Your task to perform on an android device: all mails in gmail Image 0: 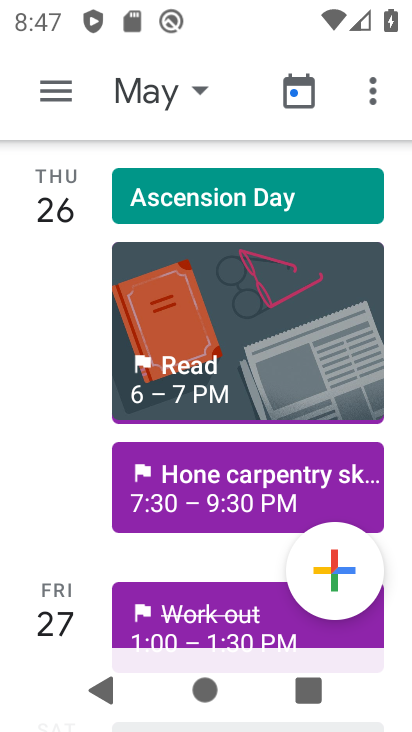
Step 0: press home button
Your task to perform on an android device: all mails in gmail Image 1: 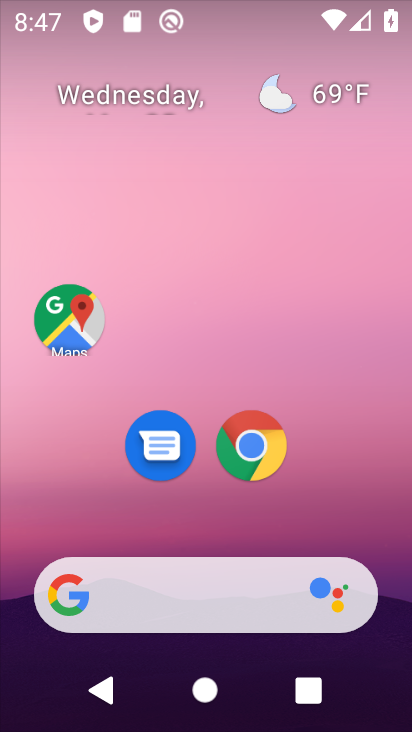
Step 1: drag from (313, 500) to (305, 67)
Your task to perform on an android device: all mails in gmail Image 2: 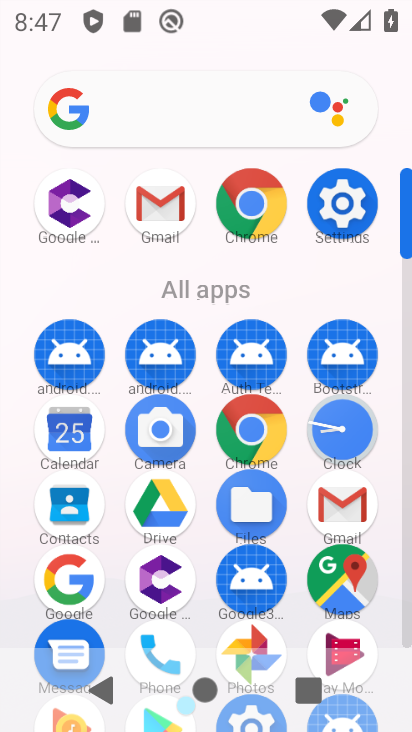
Step 2: click (161, 195)
Your task to perform on an android device: all mails in gmail Image 3: 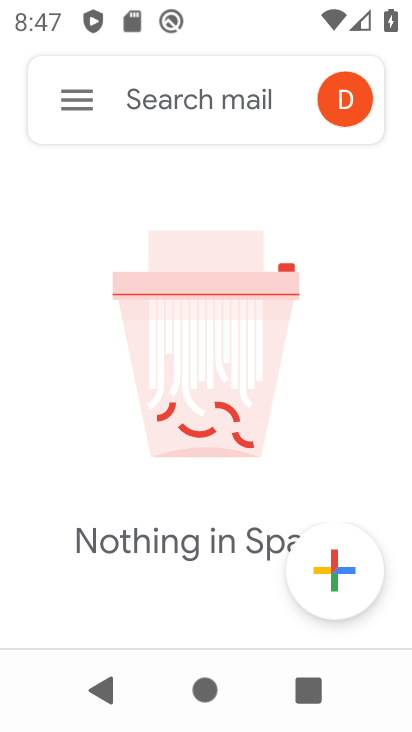
Step 3: click (69, 101)
Your task to perform on an android device: all mails in gmail Image 4: 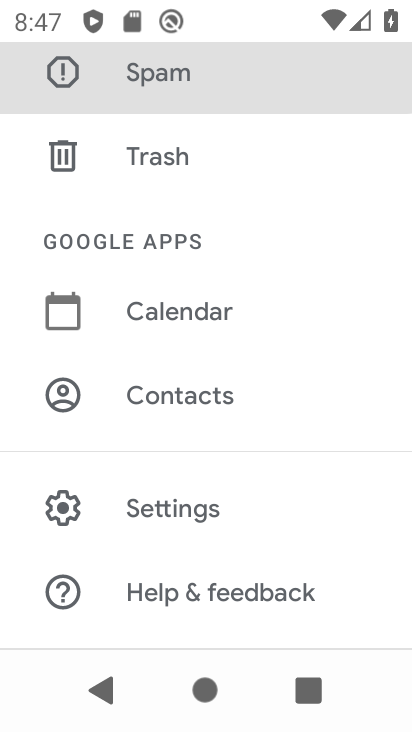
Step 4: drag from (245, 215) to (243, 513)
Your task to perform on an android device: all mails in gmail Image 5: 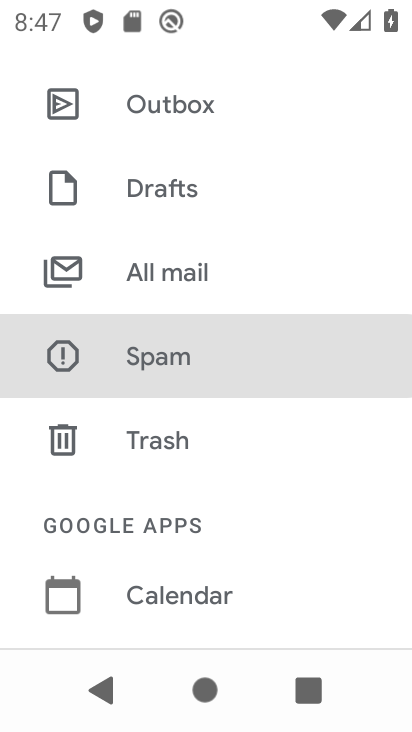
Step 5: click (178, 267)
Your task to perform on an android device: all mails in gmail Image 6: 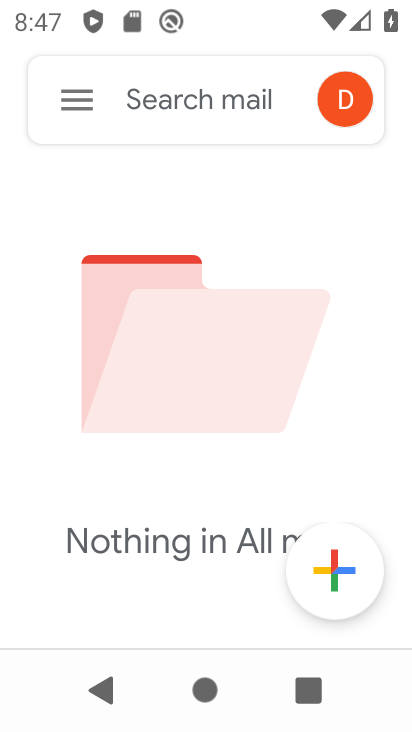
Step 6: task complete